Your task to perform on an android device: snooze an email in the gmail app Image 0: 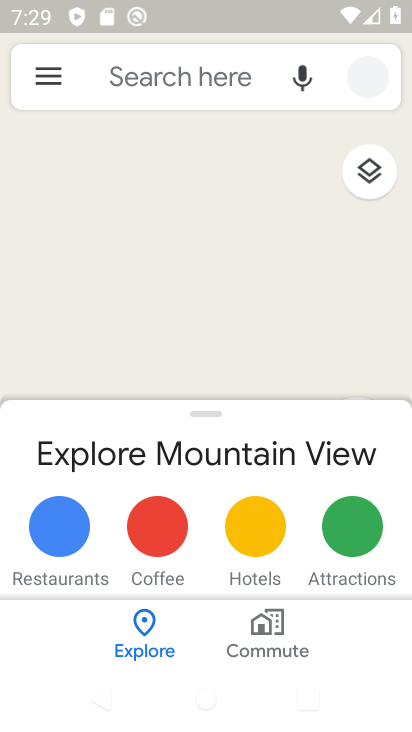
Step 0: press home button
Your task to perform on an android device: snooze an email in the gmail app Image 1: 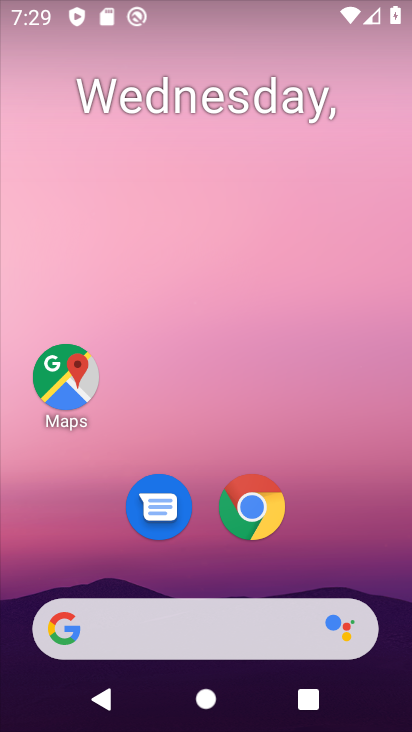
Step 1: drag from (327, 654) to (320, 186)
Your task to perform on an android device: snooze an email in the gmail app Image 2: 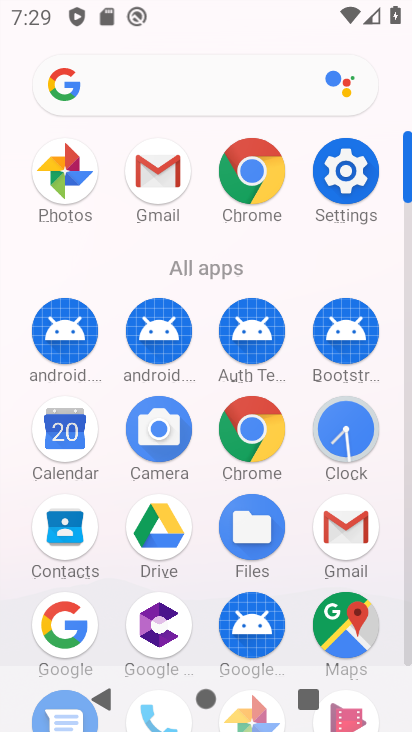
Step 2: click (164, 172)
Your task to perform on an android device: snooze an email in the gmail app Image 3: 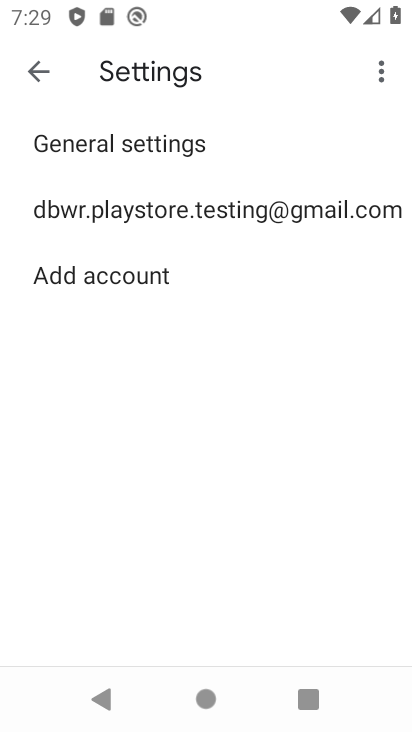
Step 3: click (37, 62)
Your task to perform on an android device: snooze an email in the gmail app Image 4: 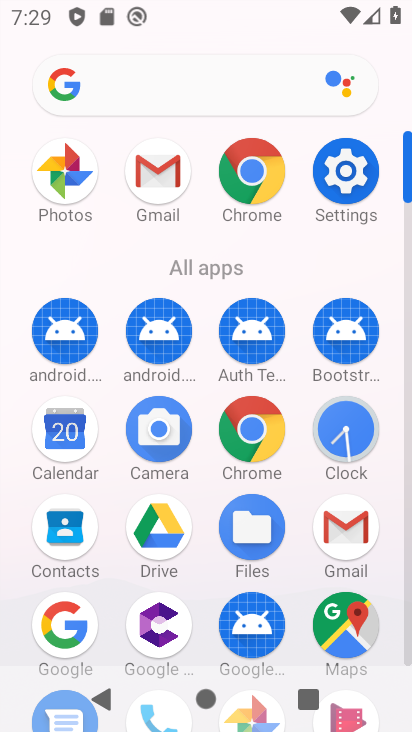
Step 4: click (141, 185)
Your task to perform on an android device: snooze an email in the gmail app Image 5: 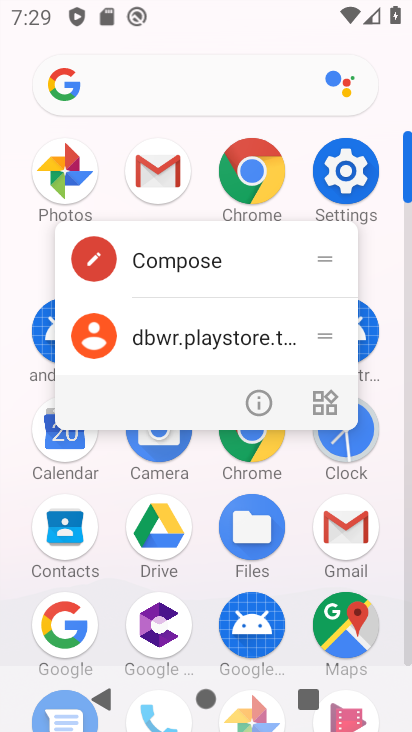
Step 5: click (148, 182)
Your task to perform on an android device: snooze an email in the gmail app Image 6: 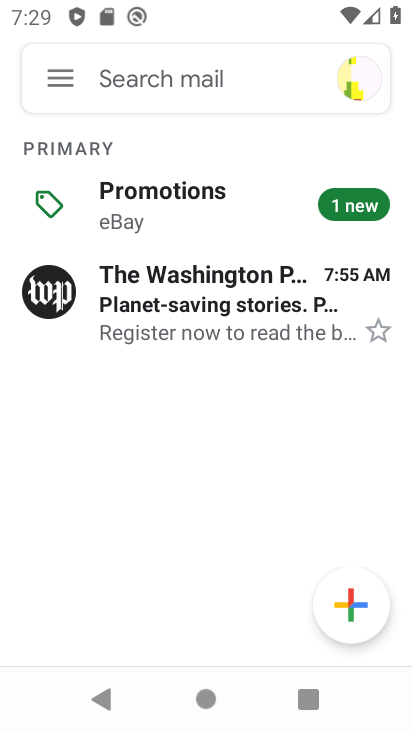
Step 6: click (65, 81)
Your task to perform on an android device: snooze an email in the gmail app Image 7: 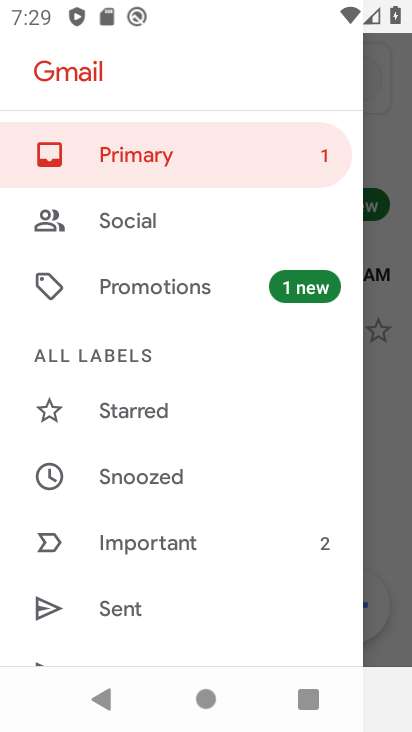
Step 7: click (139, 479)
Your task to perform on an android device: snooze an email in the gmail app Image 8: 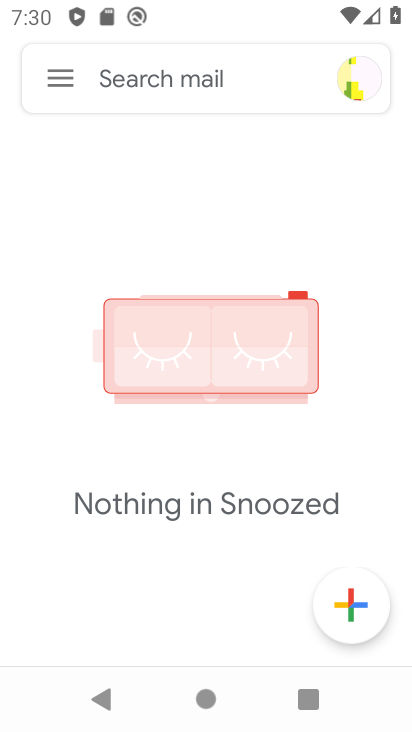
Step 8: task complete